Your task to perform on an android device: Open location settings Image 0: 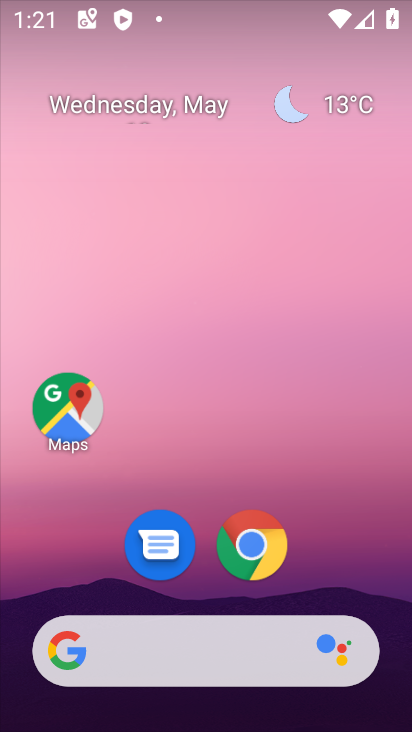
Step 0: drag from (347, 572) to (340, 85)
Your task to perform on an android device: Open location settings Image 1: 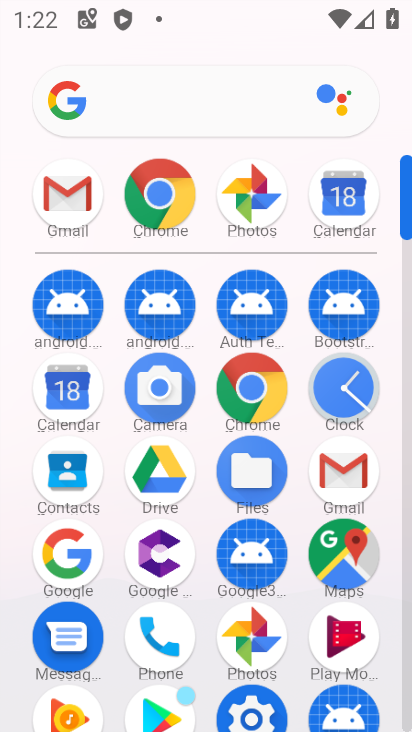
Step 1: click (262, 715)
Your task to perform on an android device: Open location settings Image 2: 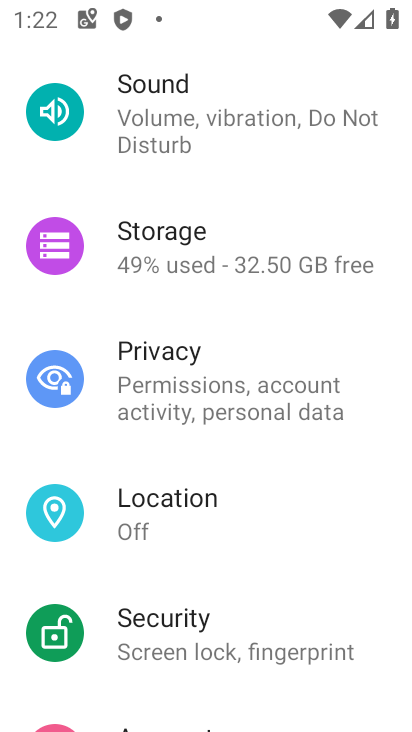
Step 2: click (229, 510)
Your task to perform on an android device: Open location settings Image 3: 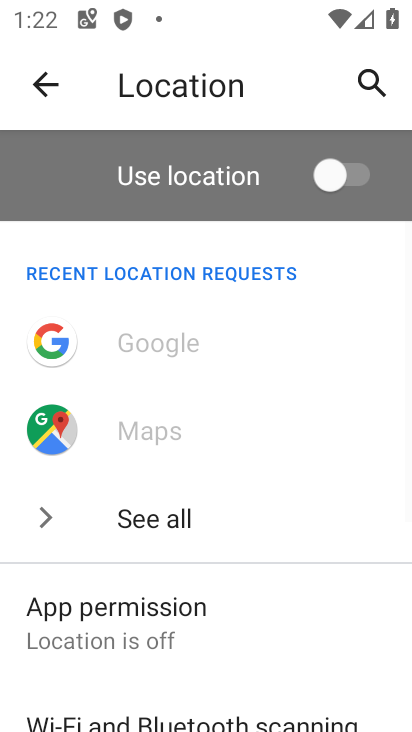
Step 3: task complete